Your task to perform on an android device: turn pop-ups off in chrome Image 0: 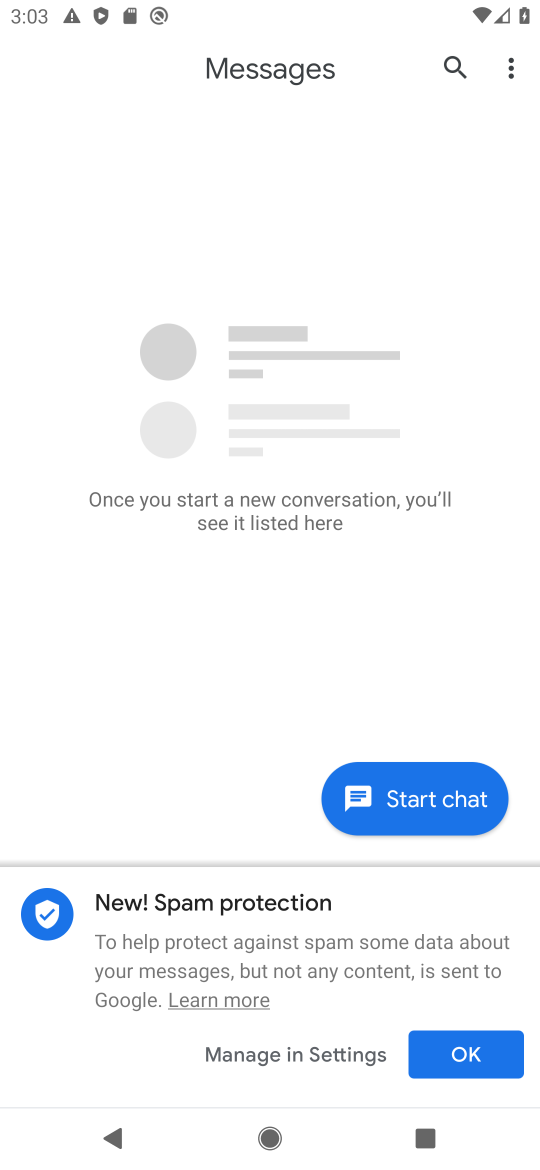
Step 0: press home button
Your task to perform on an android device: turn pop-ups off in chrome Image 1: 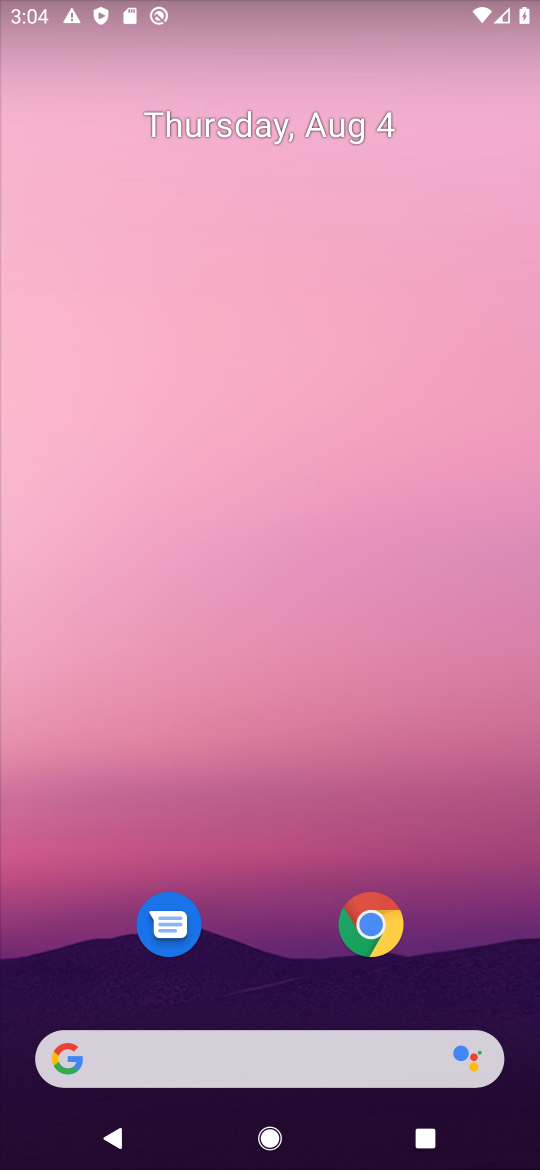
Step 1: click (377, 912)
Your task to perform on an android device: turn pop-ups off in chrome Image 2: 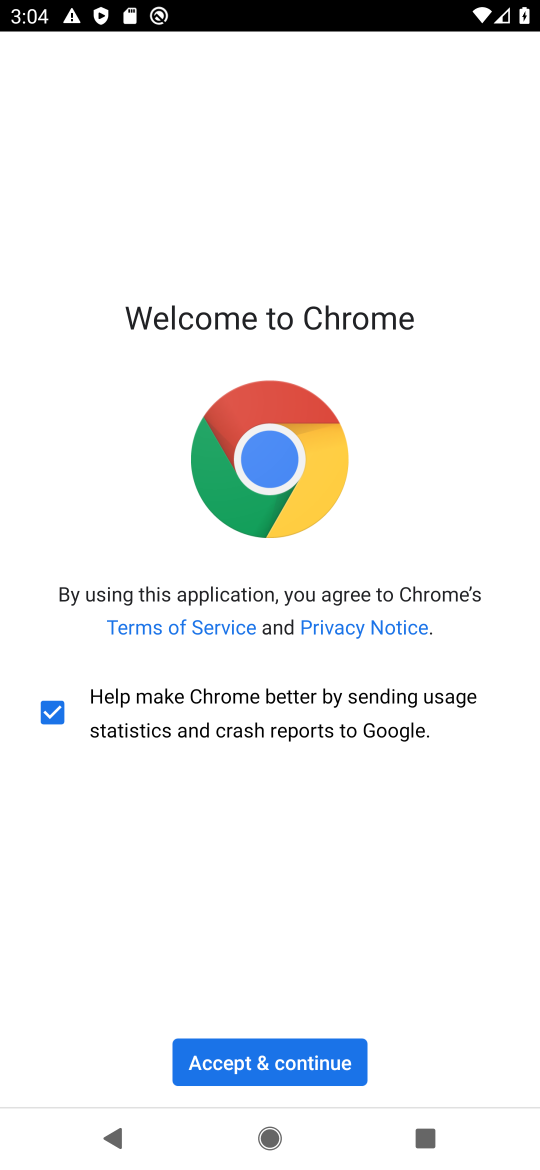
Step 2: click (253, 1045)
Your task to perform on an android device: turn pop-ups off in chrome Image 3: 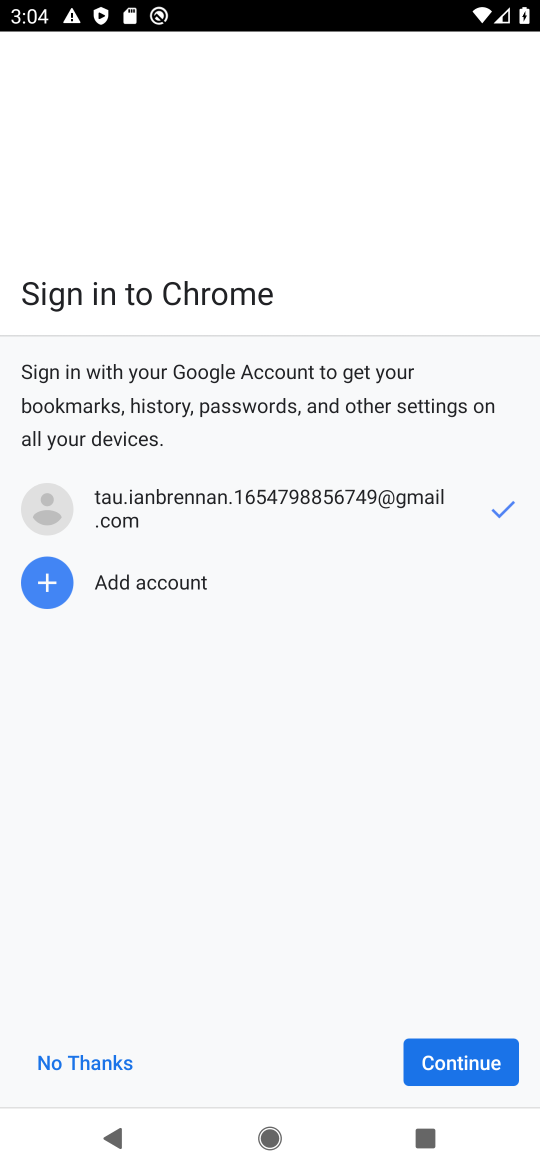
Step 3: click (460, 1059)
Your task to perform on an android device: turn pop-ups off in chrome Image 4: 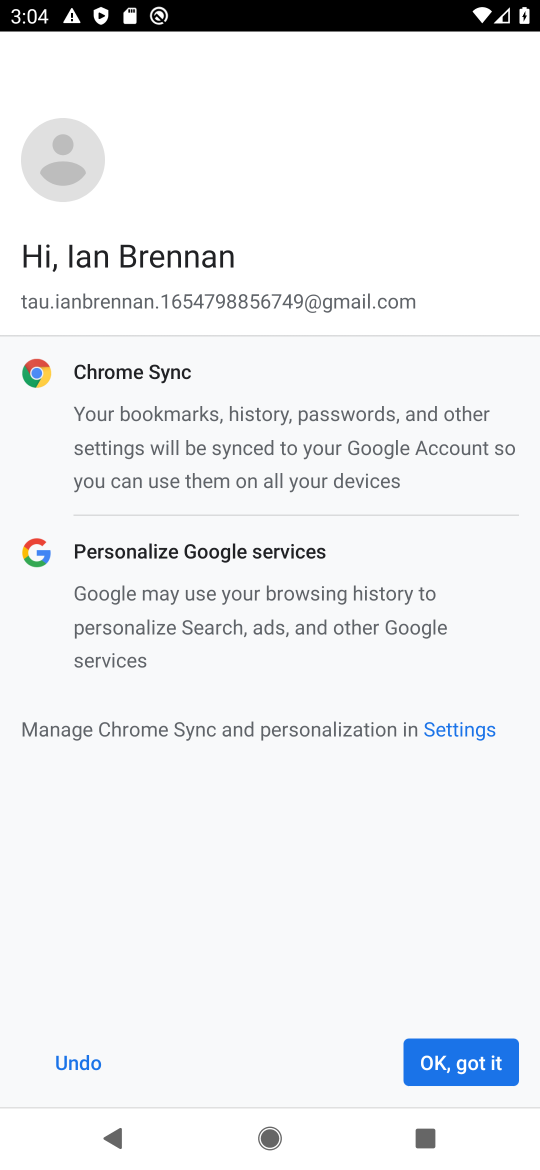
Step 4: click (451, 1074)
Your task to perform on an android device: turn pop-ups off in chrome Image 5: 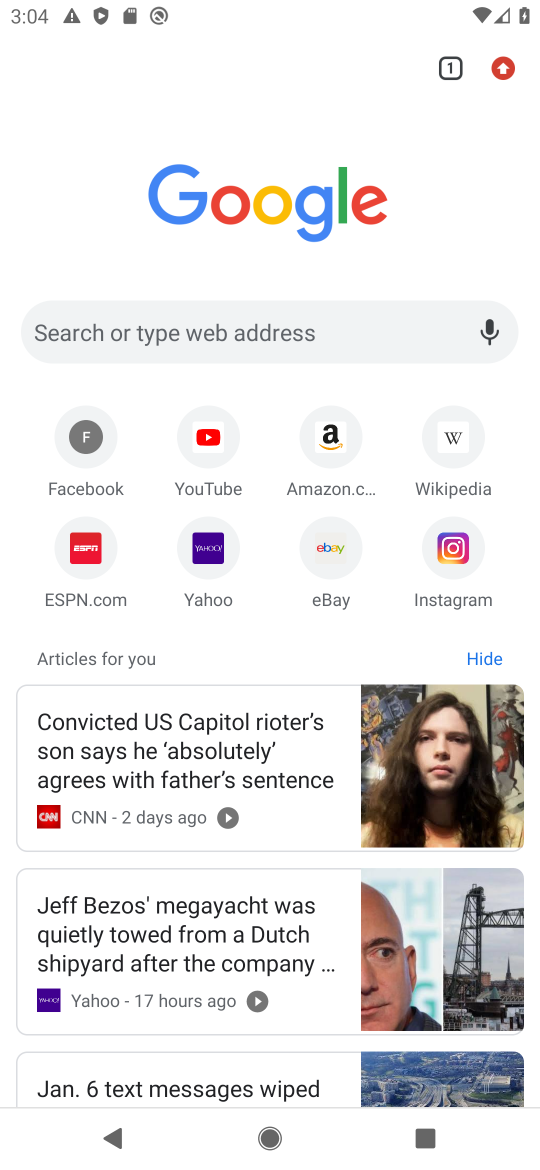
Step 5: click (498, 74)
Your task to perform on an android device: turn pop-ups off in chrome Image 6: 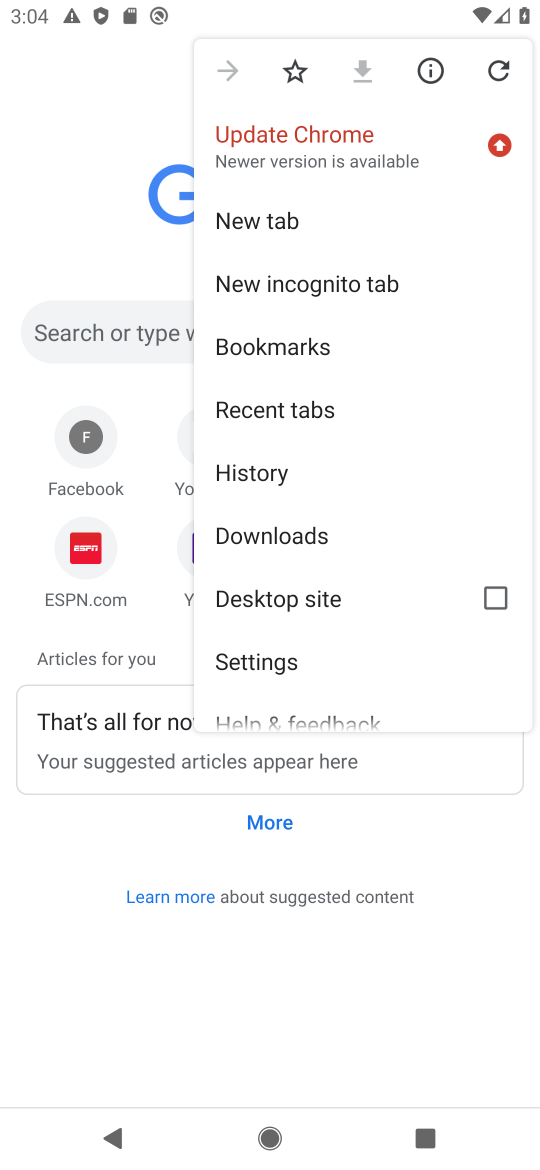
Step 6: click (247, 669)
Your task to perform on an android device: turn pop-ups off in chrome Image 7: 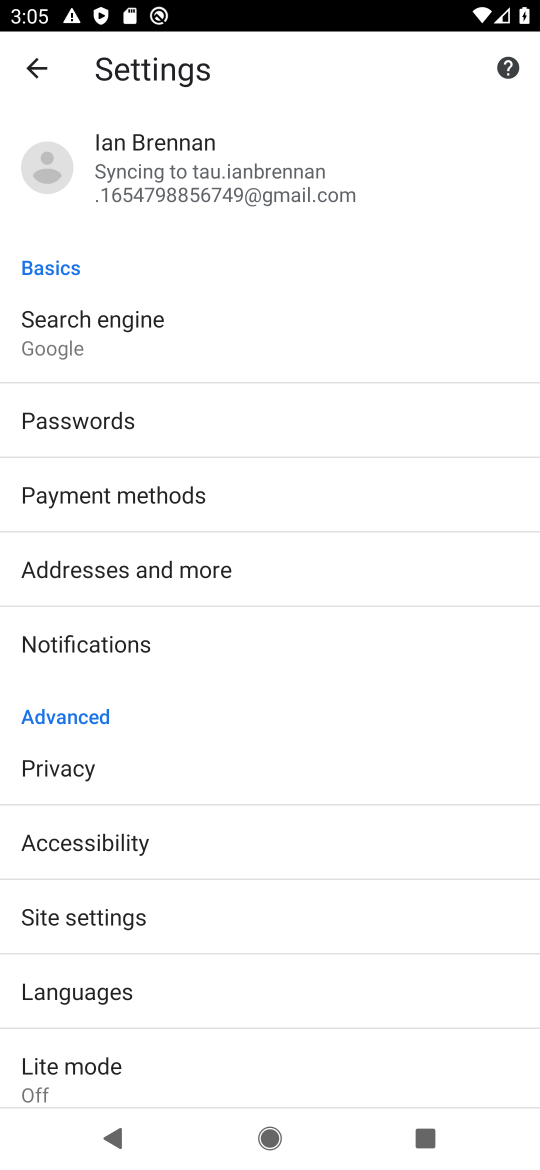
Step 7: click (102, 915)
Your task to perform on an android device: turn pop-ups off in chrome Image 8: 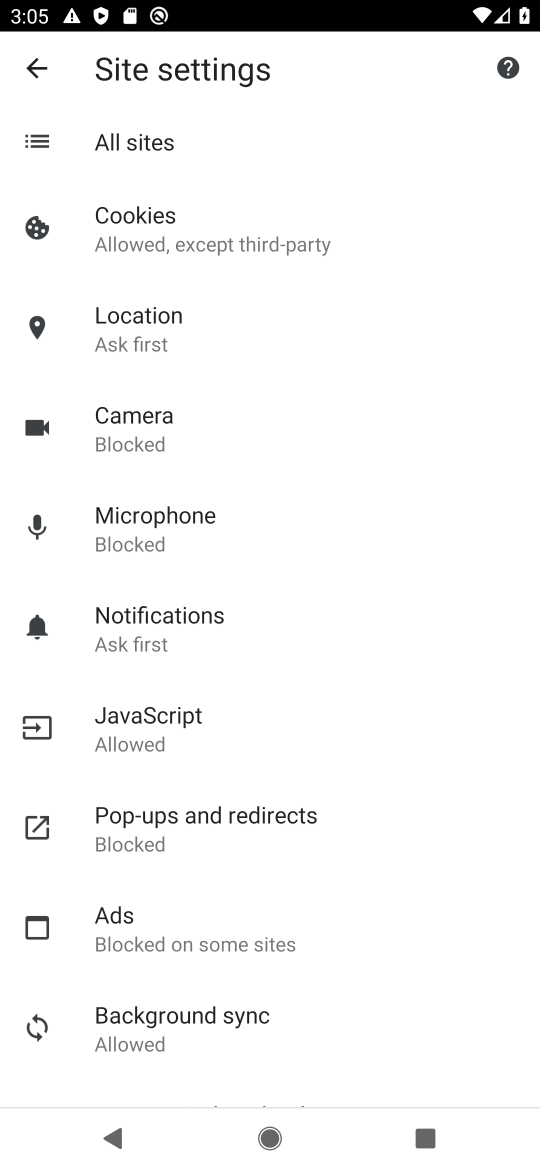
Step 8: click (140, 817)
Your task to perform on an android device: turn pop-ups off in chrome Image 9: 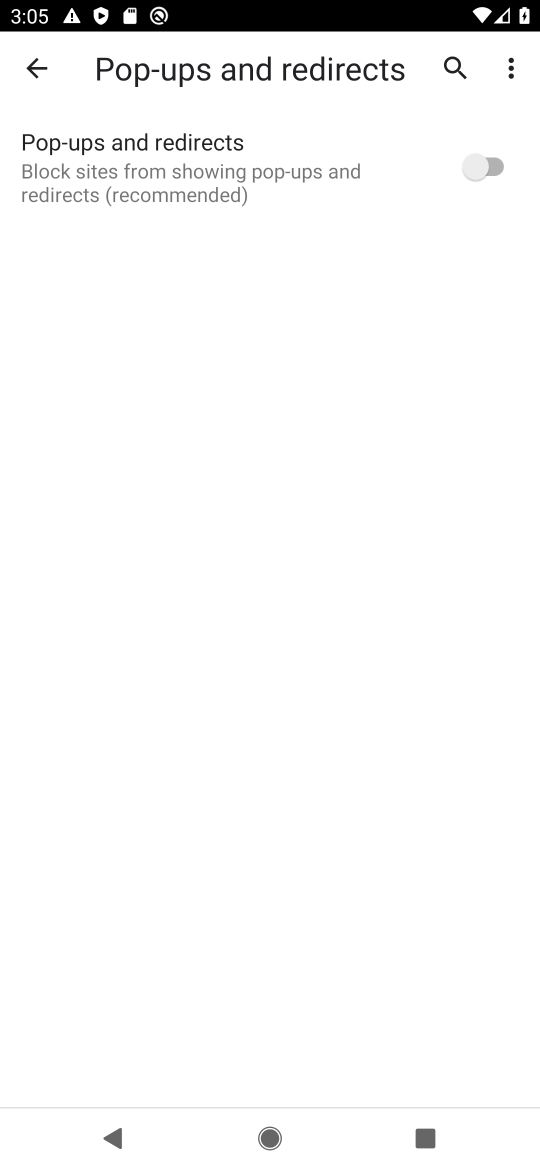
Step 9: task complete